Your task to perform on an android device: What's on my calendar tomorrow? Image 0: 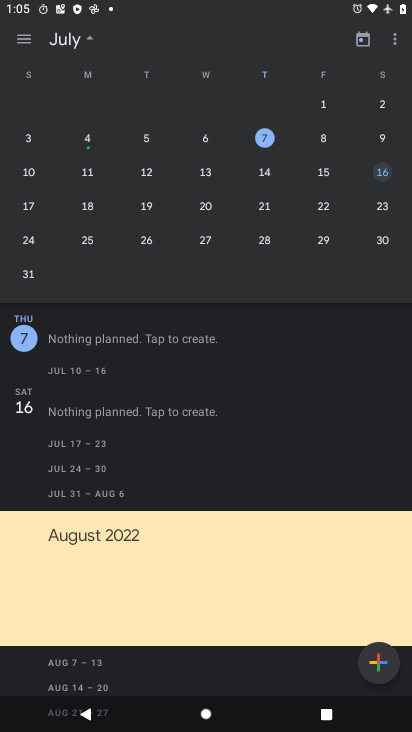
Step 0: click (323, 141)
Your task to perform on an android device: What's on my calendar tomorrow? Image 1: 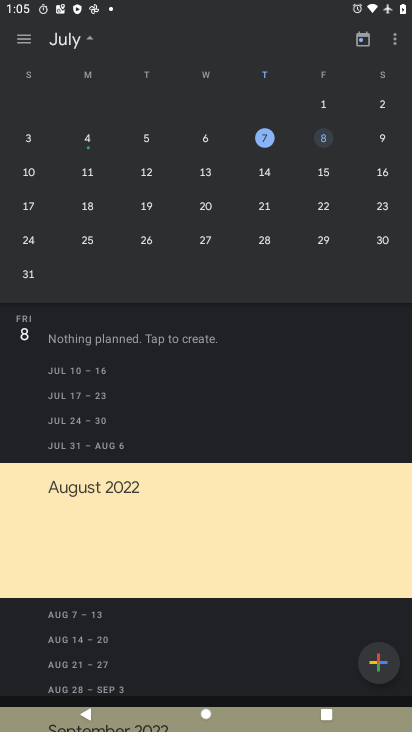
Step 1: task complete